Your task to perform on an android device: turn off location Image 0: 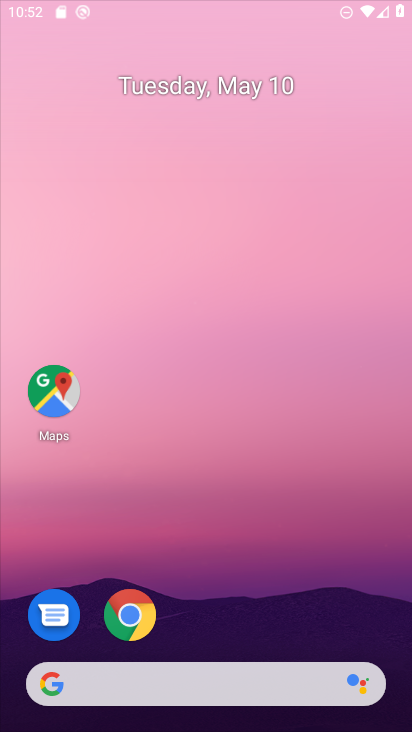
Step 0: drag from (205, 470) to (253, 156)
Your task to perform on an android device: turn off location Image 1: 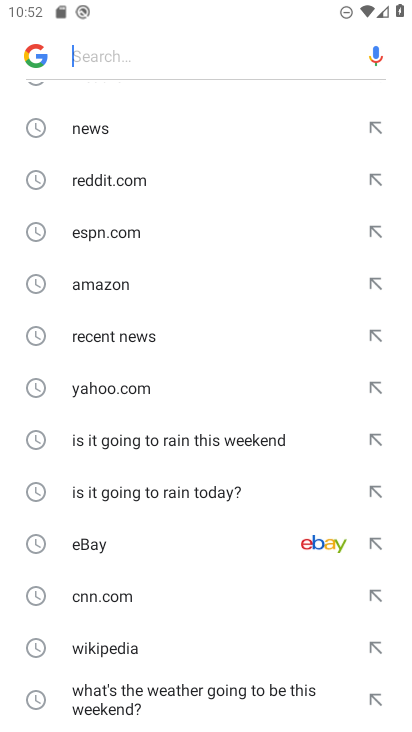
Step 1: drag from (212, 484) to (237, 235)
Your task to perform on an android device: turn off location Image 2: 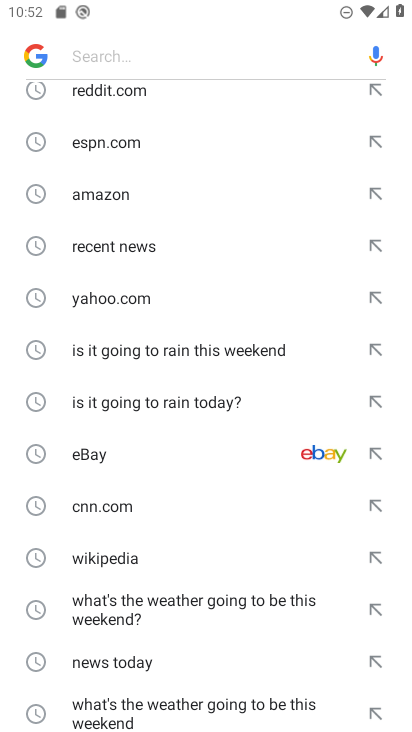
Step 2: drag from (203, 632) to (213, 283)
Your task to perform on an android device: turn off location Image 3: 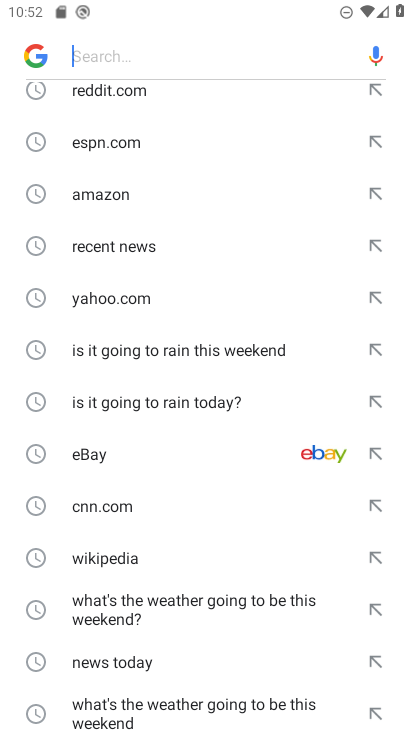
Step 3: press home button
Your task to perform on an android device: turn off location Image 4: 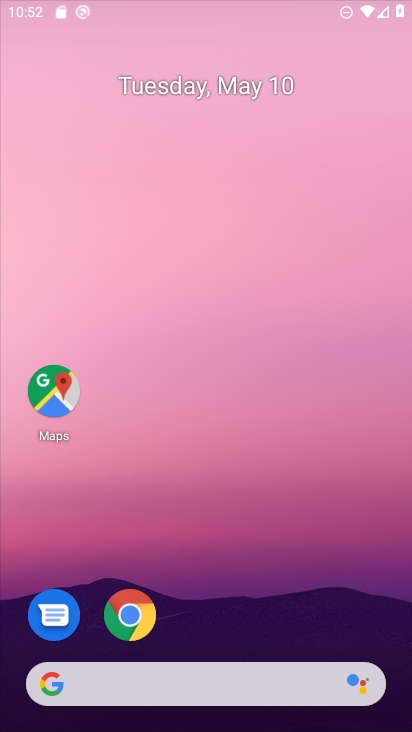
Step 4: drag from (199, 636) to (265, 116)
Your task to perform on an android device: turn off location Image 5: 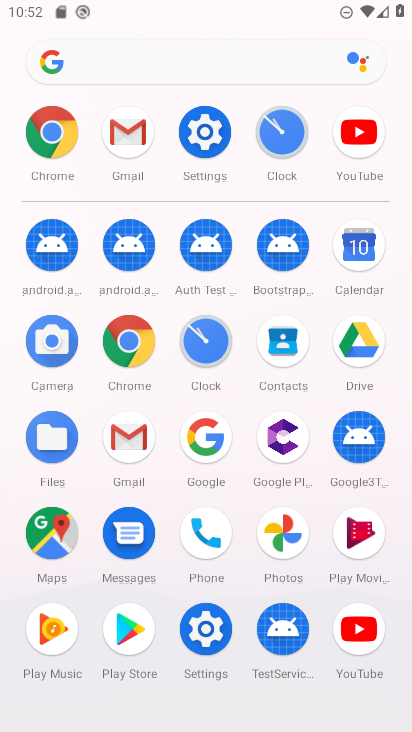
Step 5: click (215, 123)
Your task to perform on an android device: turn off location Image 6: 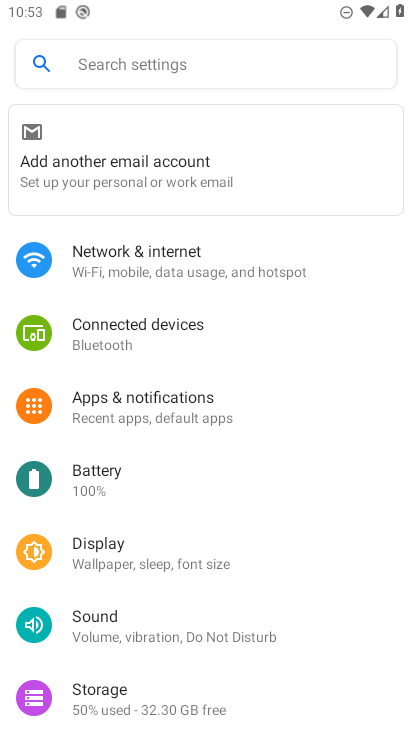
Step 6: drag from (183, 653) to (246, 226)
Your task to perform on an android device: turn off location Image 7: 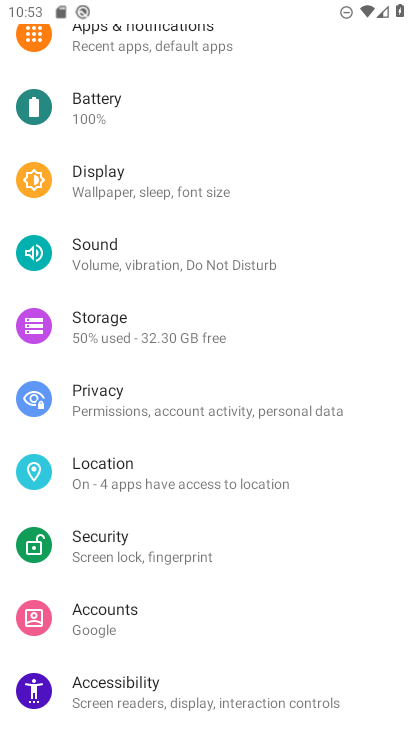
Step 7: click (157, 487)
Your task to perform on an android device: turn off location Image 8: 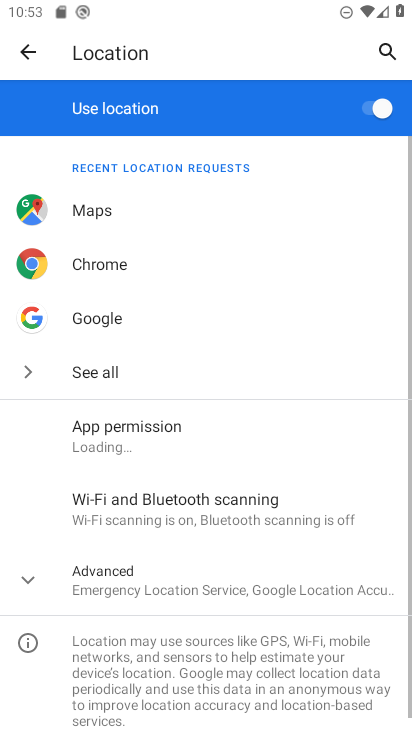
Step 8: click (357, 116)
Your task to perform on an android device: turn off location Image 9: 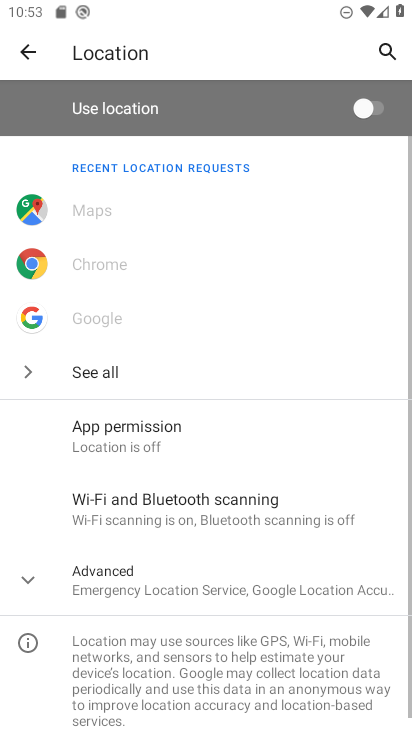
Step 9: task complete